Your task to perform on an android device: When is my next appointment? Image 0: 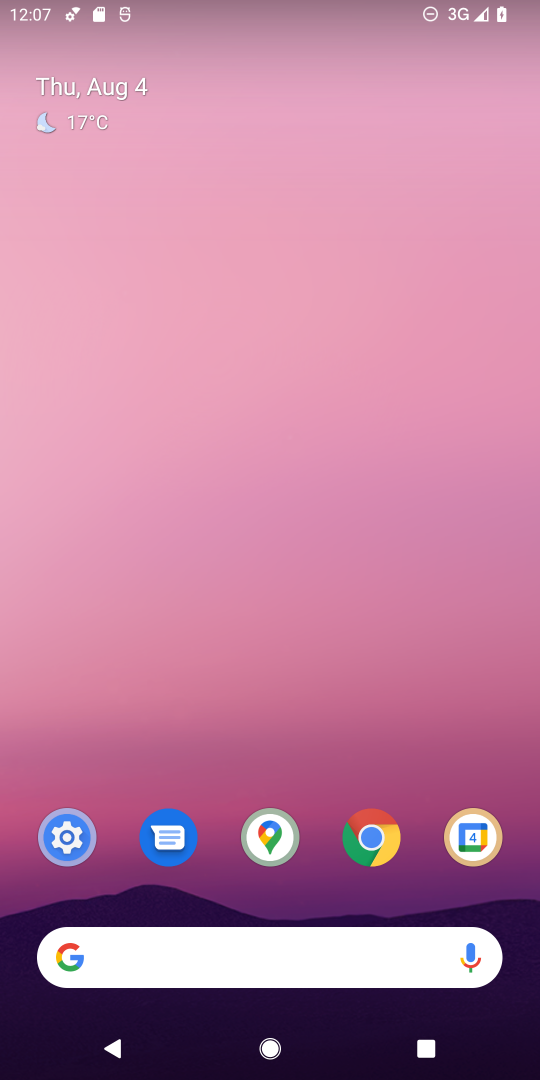
Step 0: drag from (428, 871) to (237, 102)
Your task to perform on an android device: When is my next appointment? Image 1: 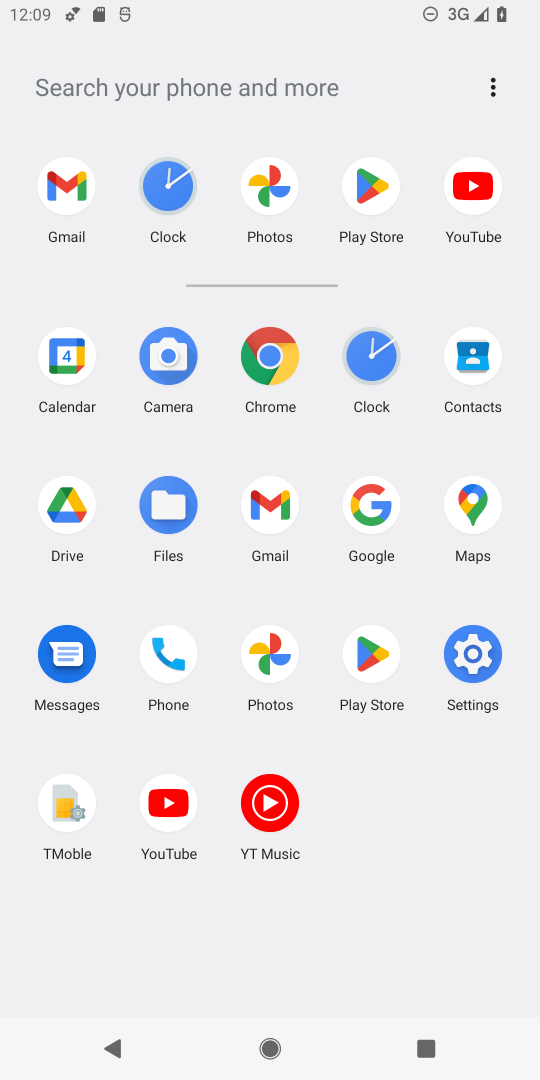
Step 1: click (64, 351)
Your task to perform on an android device: When is my next appointment? Image 2: 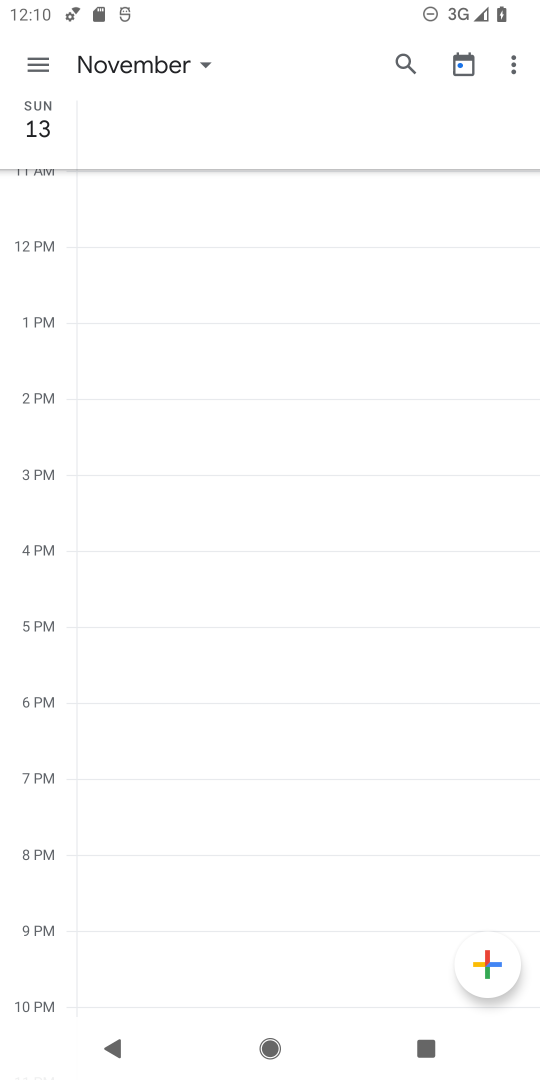
Step 2: task complete